Your task to perform on an android device: See recent photos Image 0: 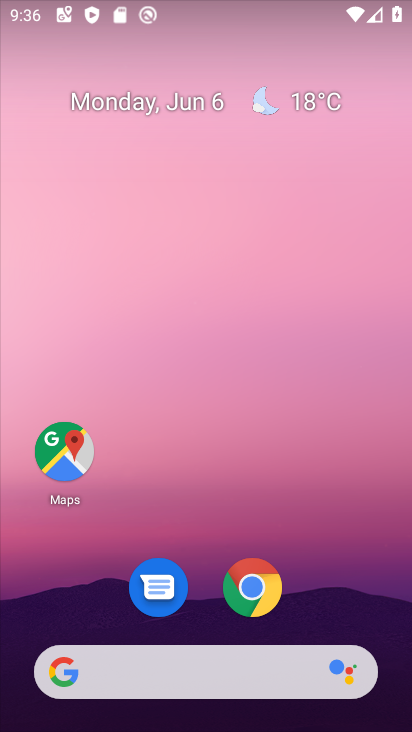
Step 0: drag from (348, 556) to (326, 101)
Your task to perform on an android device: See recent photos Image 1: 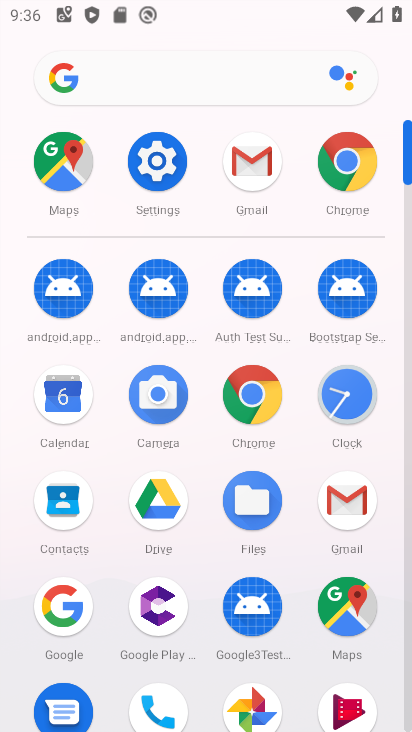
Step 1: click (261, 701)
Your task to perform on an android device: See recent photos Image 2: 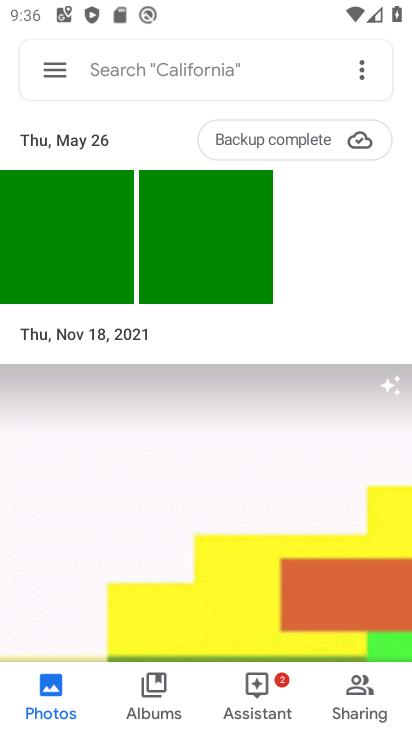
Step 2: task complete